Your task to perform on an android device: change the clock style Image 0: 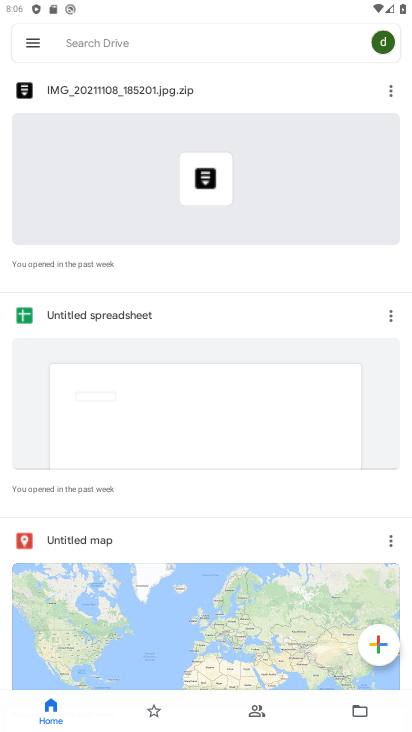
Step 0: press home button
Your task to perform on an android device: change the clock style Image 1: 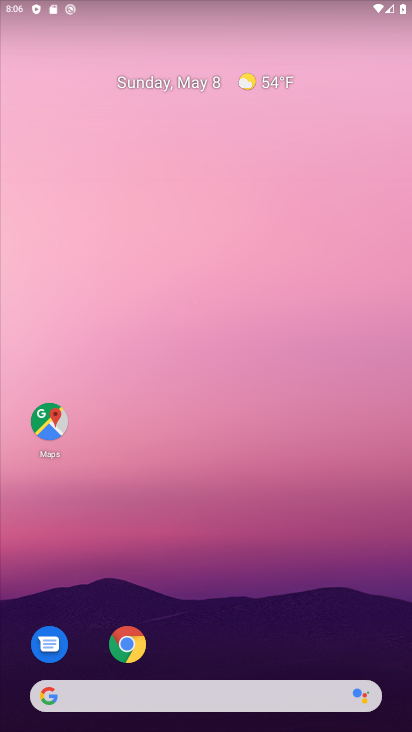
Step 1: drag from (173, 680) to (231, 277)
Your task to perform on an android device: change the clock style Image 2: 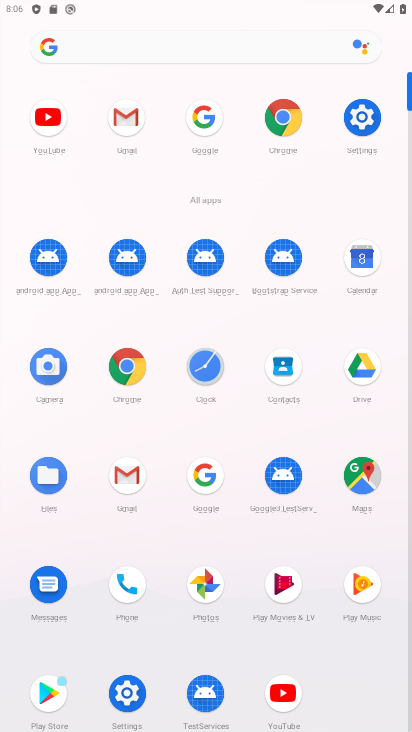
Step 2: click (195, 371)
Your task to perform on an android device: change the clock style Image 3: 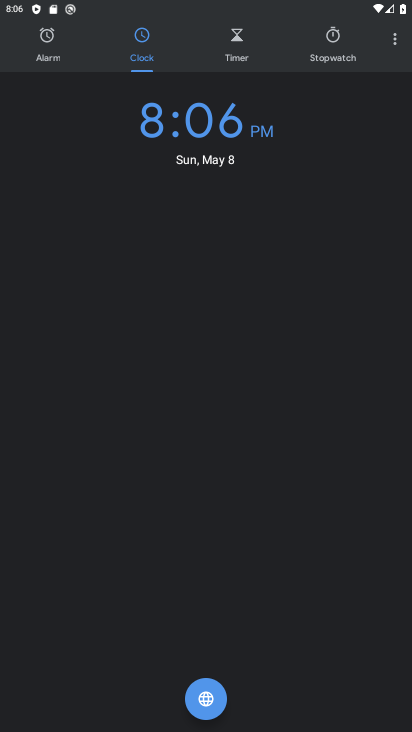
Step 3: click (392, 34)
Your task to perform on an android device: change the clock style Image 4: 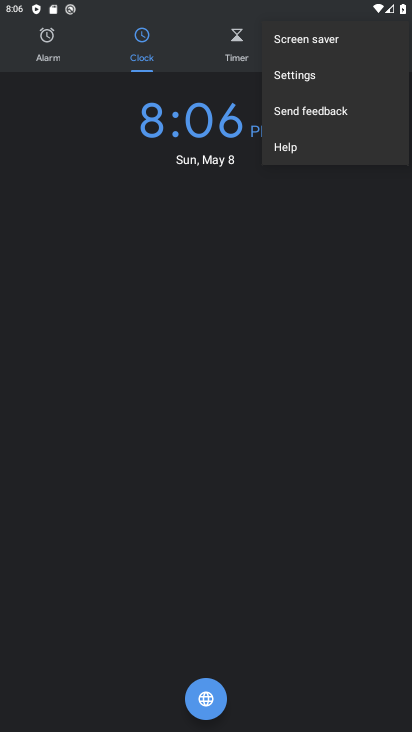
Step 4: click (319, 72)
Your task to perform on an android device: change the clock style Image 5: 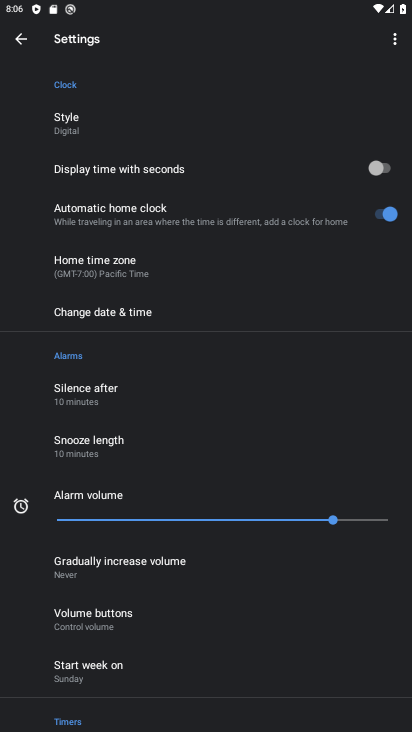
Step 5: click (57, 115)
Your task to perform on an android device: change the clock style Image 6: 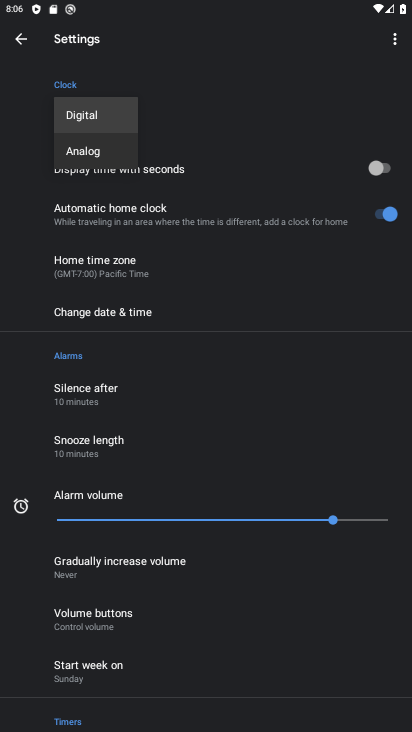
Step 6: click (94, 151)
Your task to perform on an android device: change the clock style Image 7: 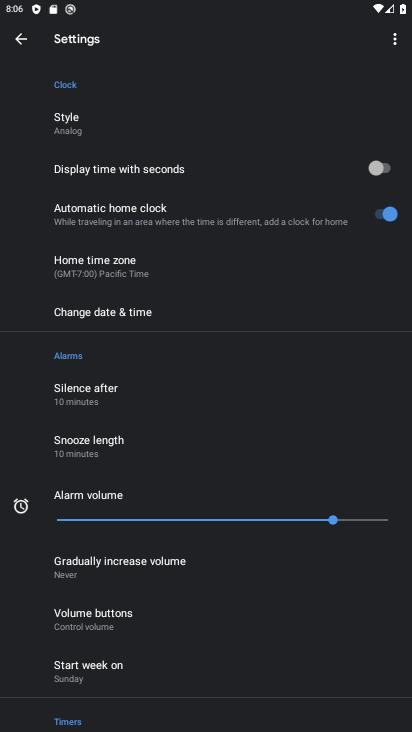
Step 7: task complete